Your task to perform on an android device: Open Amazon Image 0: 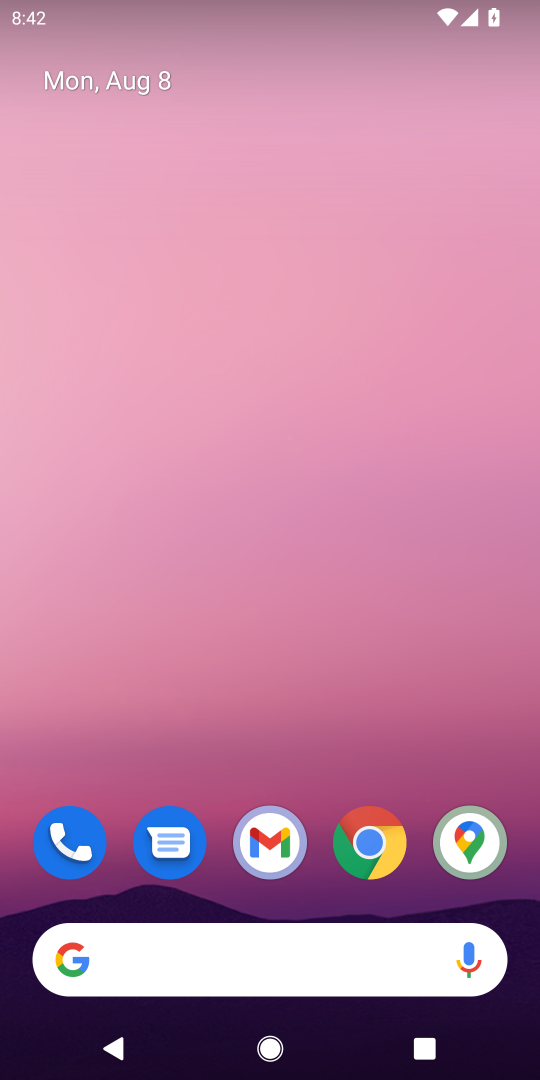
Step 0: click (360, 835)
Your task to perform on an android device: Open Amazon Image 1: 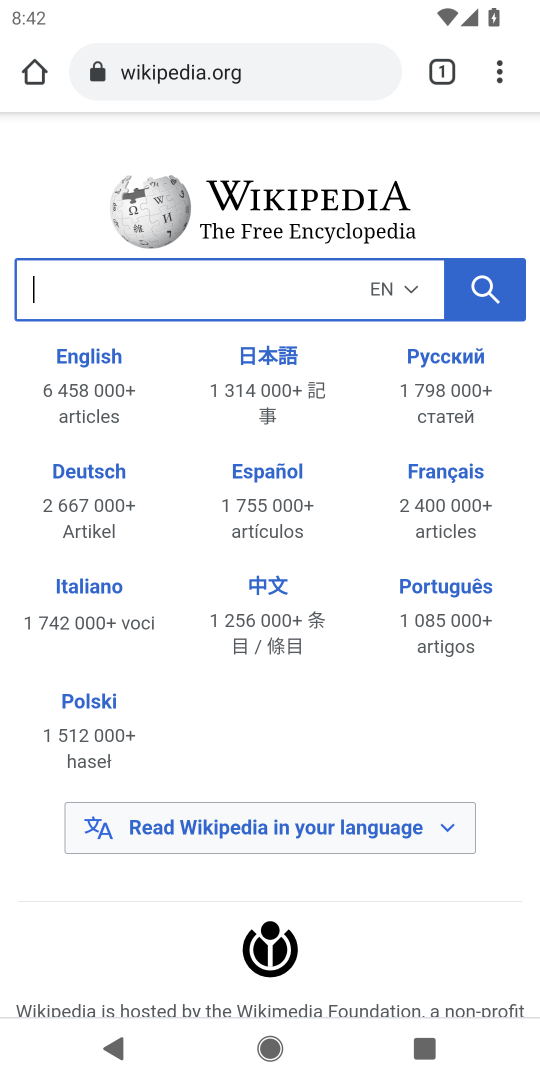
Step 1: click (310, 71)
Your task to perform on an android device: Open Amazon Image 2: 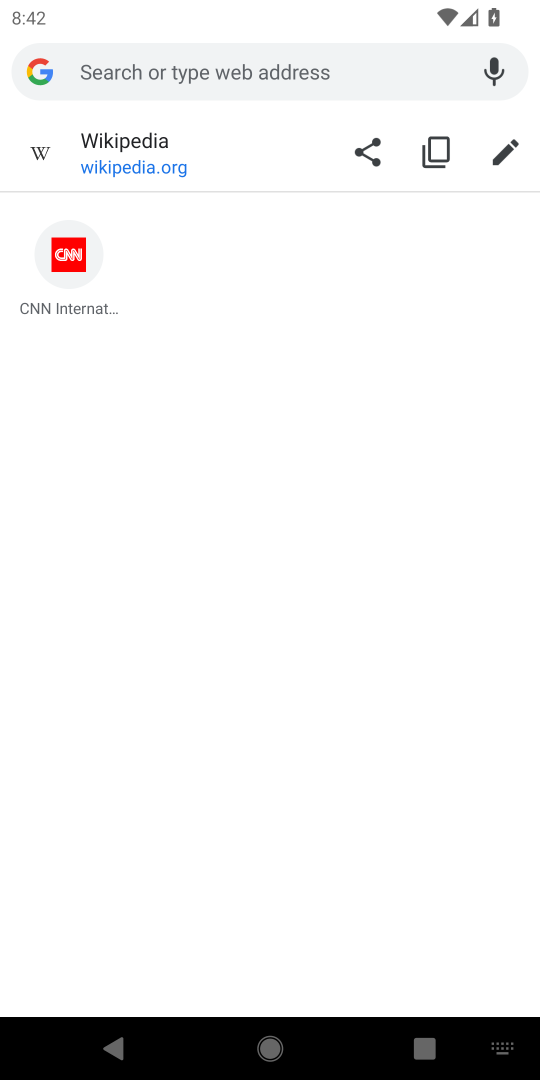
Step 2: type "amazon"
Your task to perform on an android device: Open Amazon Image 3: 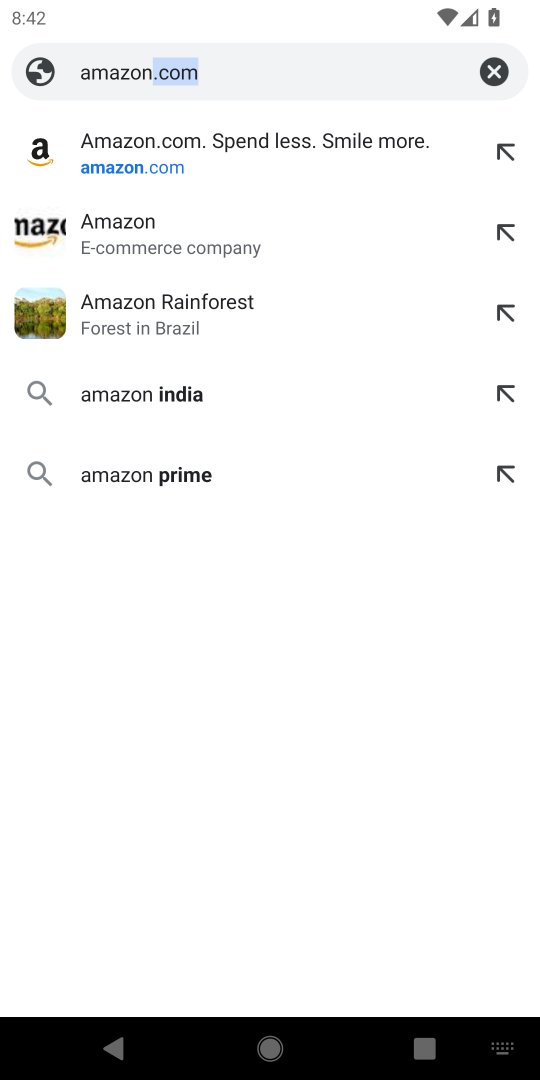
Step 3: click (314, 161)
Your task to perform on an android device: Open Amazon Image 4: 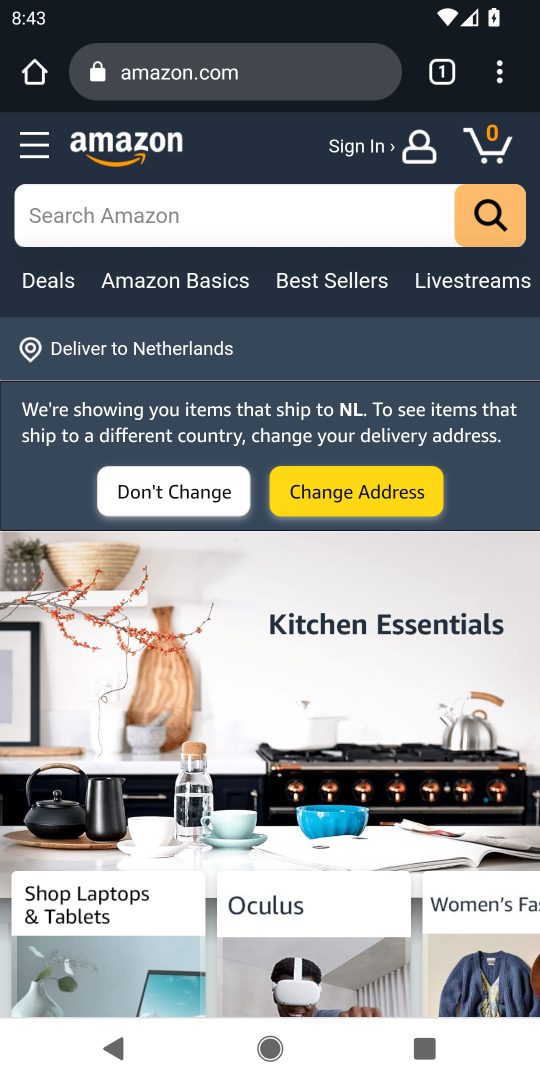
Step 4: task complete